Your task to perform on an android device: Open Amazon Image 0: 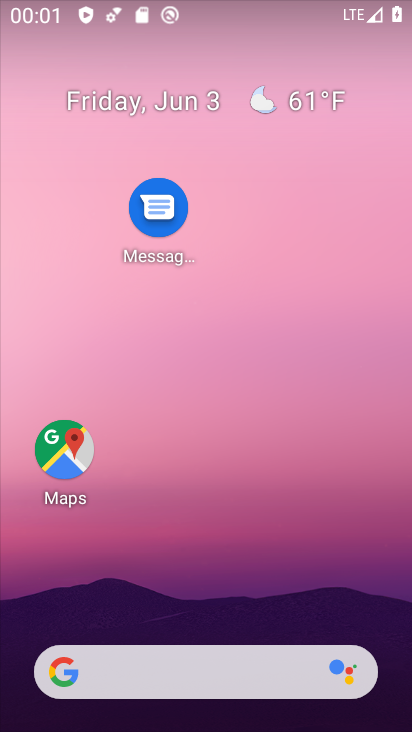
Step 0: drag from (178, 639) to (248, 56)
Your task to perform on an android device: Open Amazon Image 1: 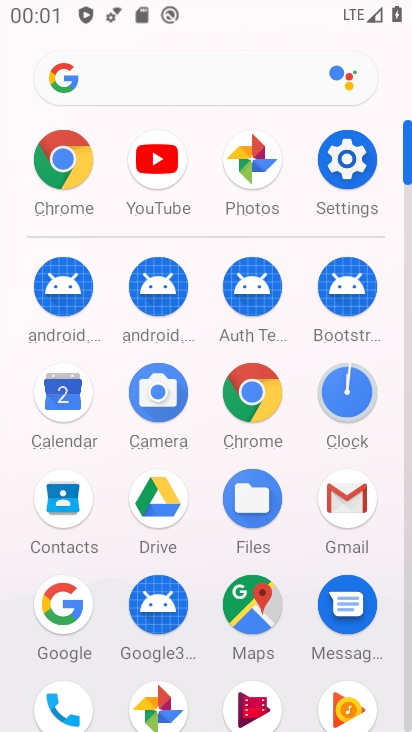
Step 1: click (240, 405)
Your task to perform on an android device: Open Amazon Image 2: 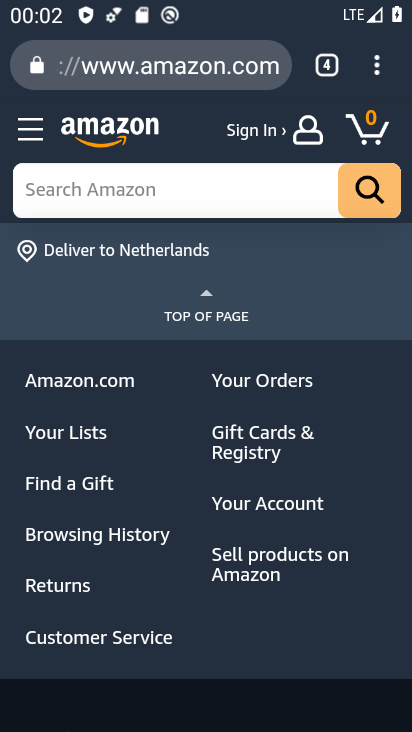
Step 2: task complete